Your task to perform on an android device: Go to notification settings Image 0: 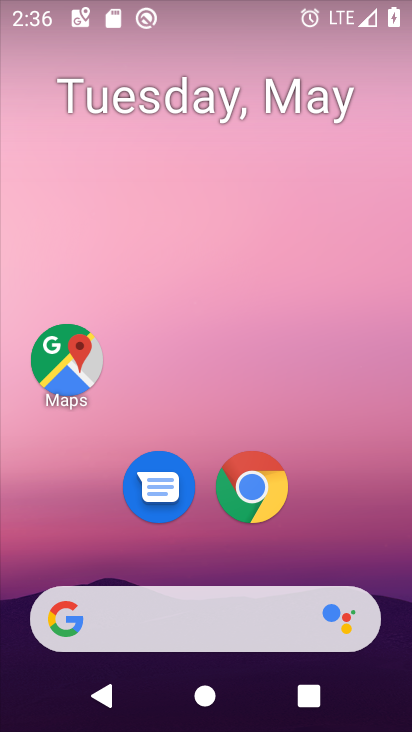
Step 0: drag from (13, 332) to (258, 133)
Your task to perform on an android device: Go to notification settings Image 1: 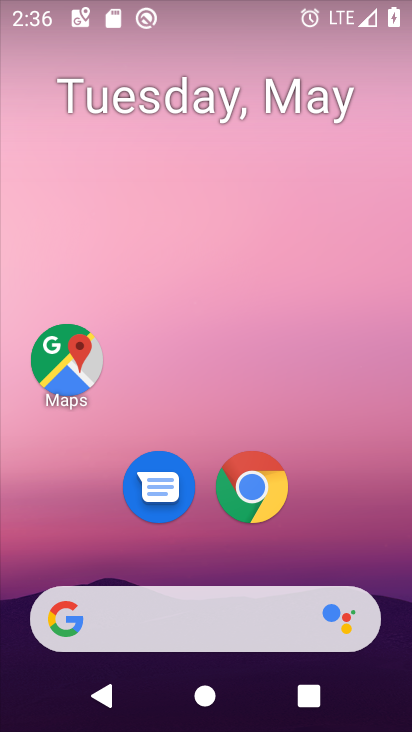
Step 1: drag from (89, 544) to (305, 132)
Your task to perform on an android device: Go to notification settings Image 2: 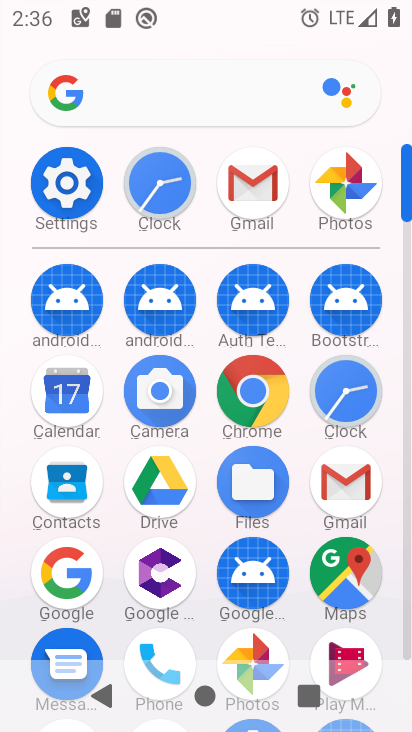
Step 2: click (41, 171)
Your task to perform on an android device: Go to notification settings Image 3: 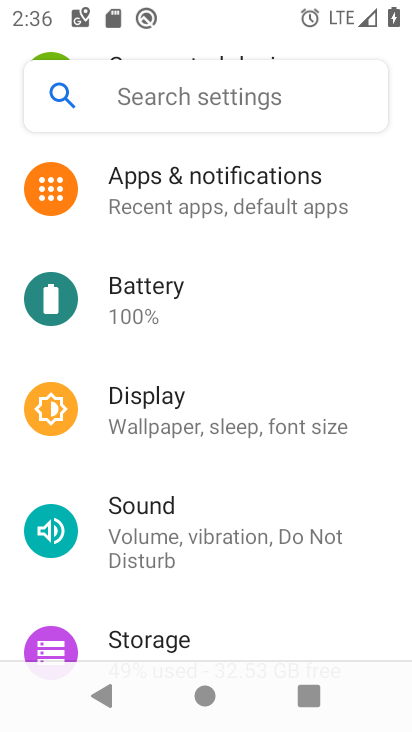
Step 3: click (237, 187)
Your task to perform on an android device: Go to notification settings Image 4: 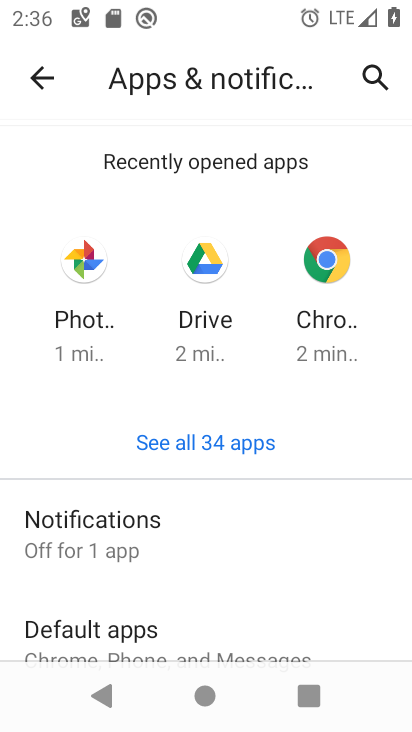
Step 4: click (135, 503)
Your task to perform on an android device: Go to notification settings Image 5: 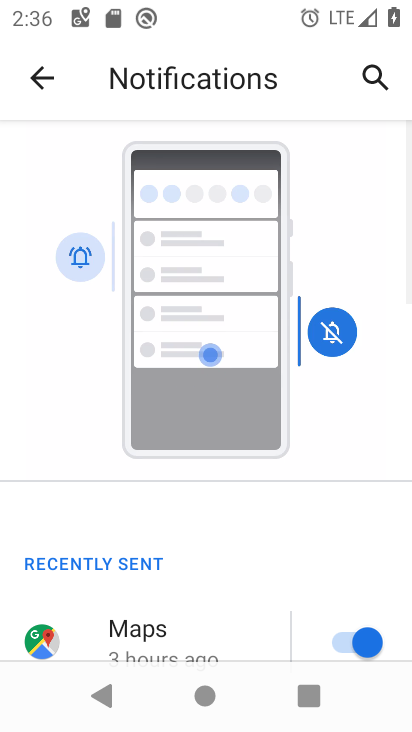
Step 5: task complete